Your task to perform on an android device: change text size in settings app Image 0: 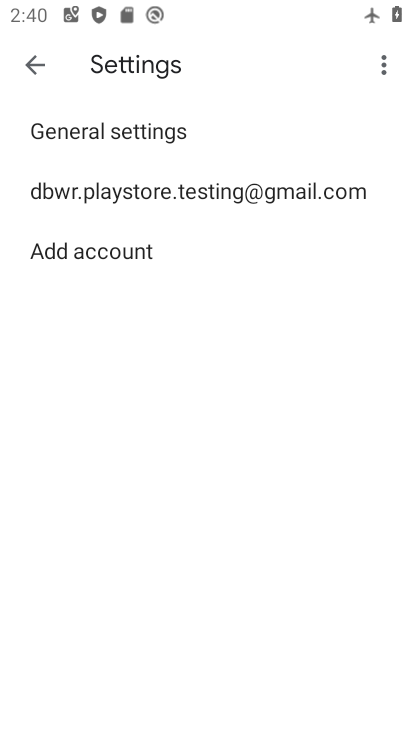
Step 0: press home button
Your task to perform on an android device: change text size in settings app Image 1: 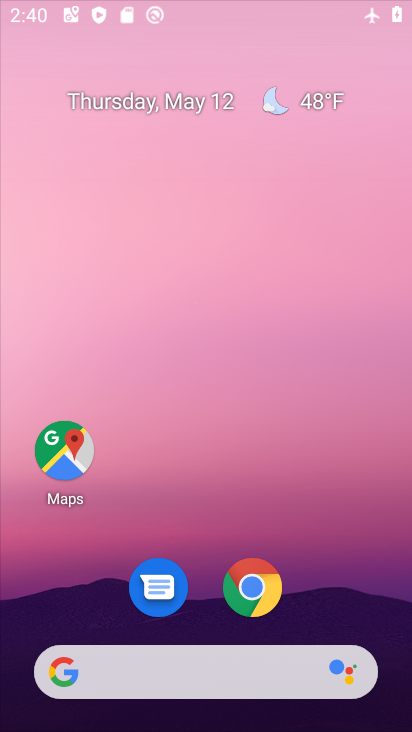
Step 1: drag from (257, 605) to (251, 37)
Your task to perform on an android device: change text size in settings app Image 2: 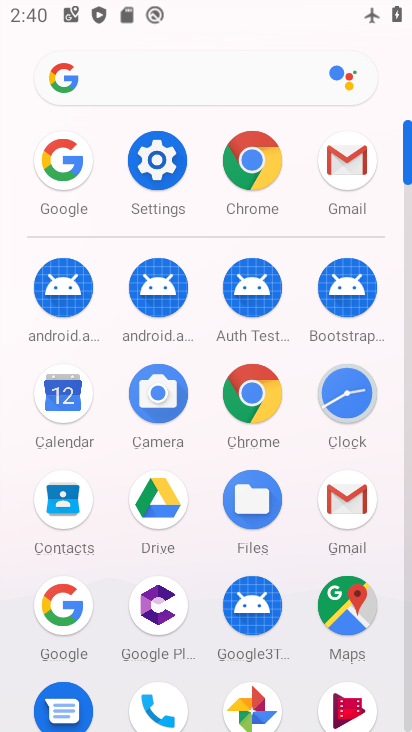
Step 2: click (143, 144)
Your task to perform on an android device: change text size in settings app Image 3: 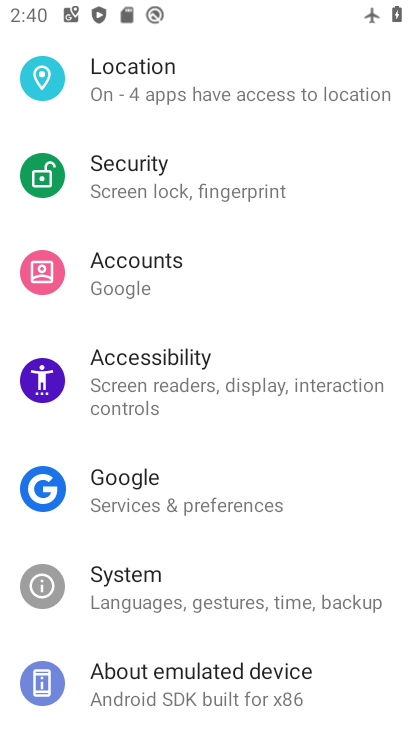
Step 3: drag from (186, 266) to (181, 551)
Your task to perform on an android device: change text size in settings app Image 4: 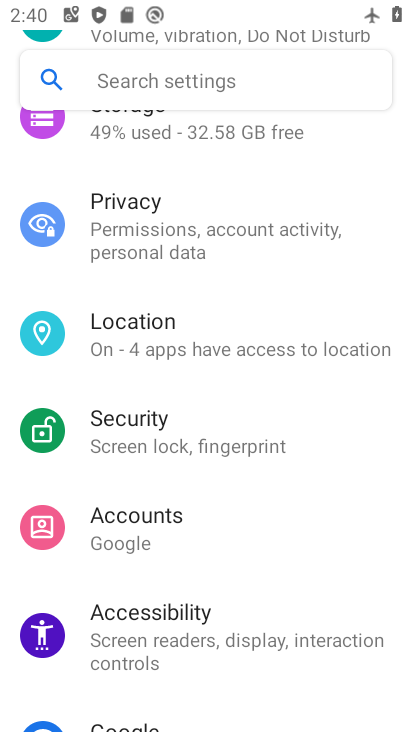
Step 4: drag from (223, 351) to (211, 584)
Your task to perform on an android device: change text size in settings app Image 5: 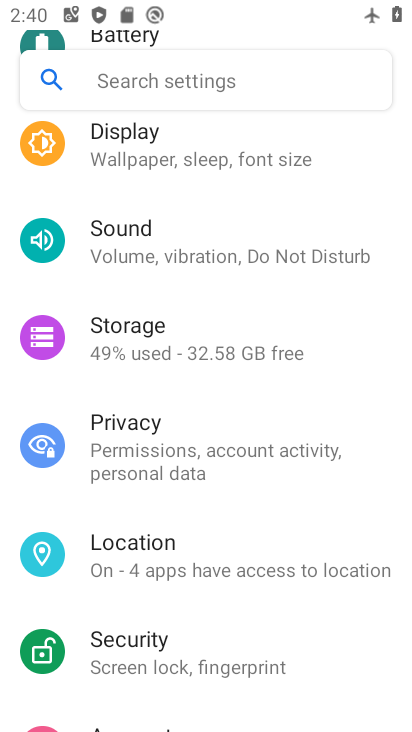
Step 5: drag from (196, 336) to (181, 633)
Your task to perform on an android device: change text size in settings app Image 6: 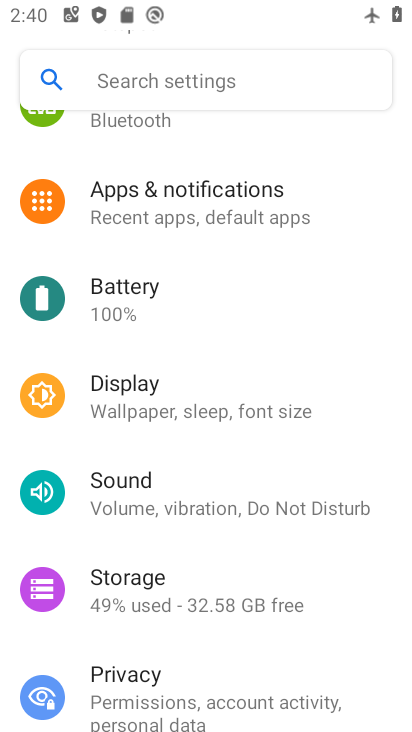
Step 6: drag from (202, 526) to (222, 414)
Your task to perform on an android device: change text size in settings app Image 7: 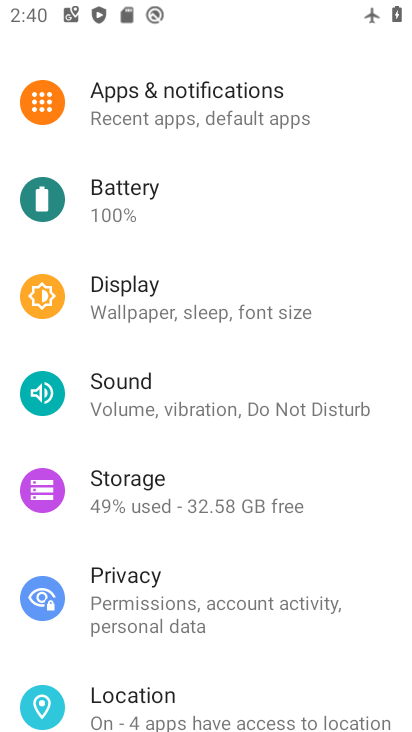
Step 7: click (220, 300)
Your task to perform on an android device: change text size in settings app Image 8: 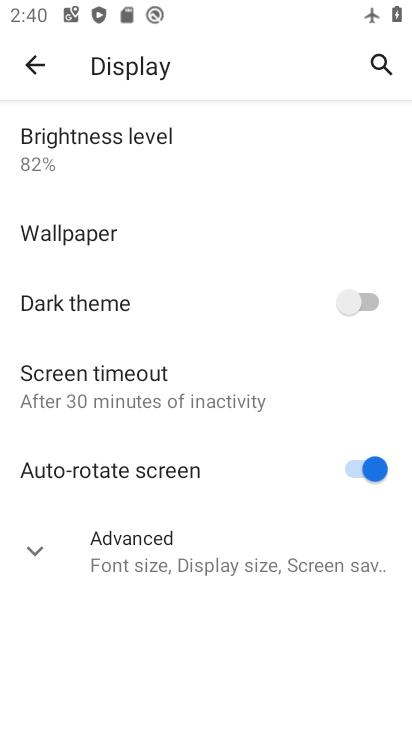
Step 8: click (166, 568)
Your task to perform on an android device: change text size in settings app Image 9: 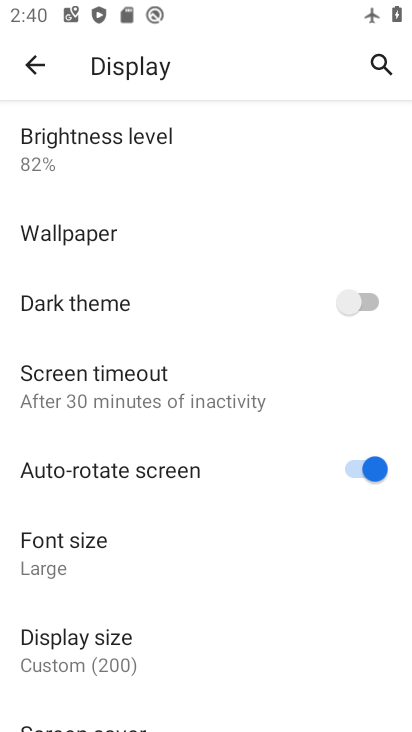
Step 9: drag from (169, 583) to (194, 424)
Your task to perform on an android device: change text size in settings app Image 10: 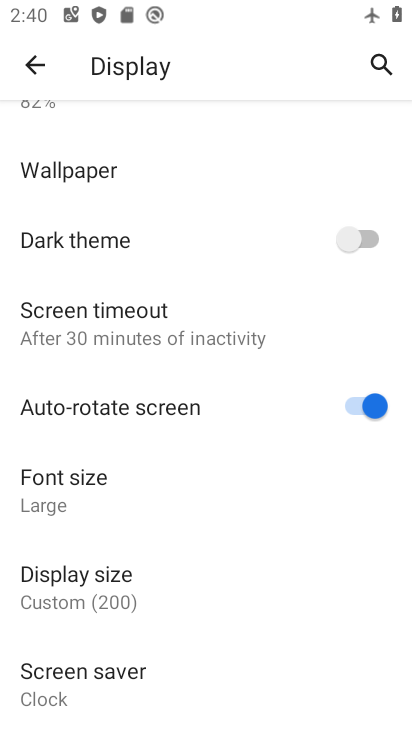
Step 10: click (154, 499)
Your task to perform on an android device: change text size in settings app Image 11: 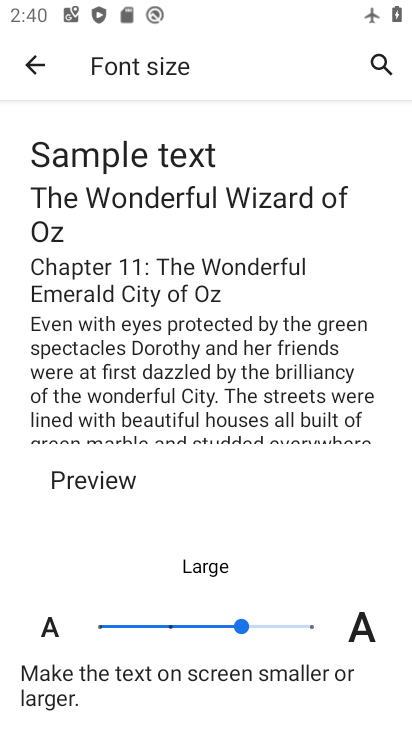
Step 11: click (182, 626)
Your task to perform on an android device: change text size in settings app Image 12: 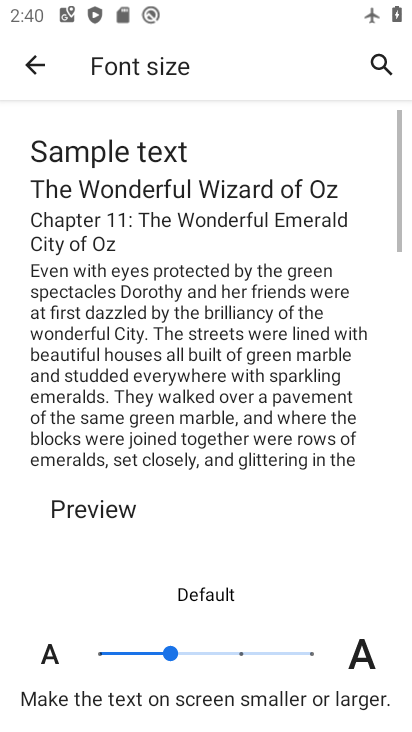
Step 12: task complete